Your task to perform on an android device: turn vacation reply on in the gmail app Image 0: 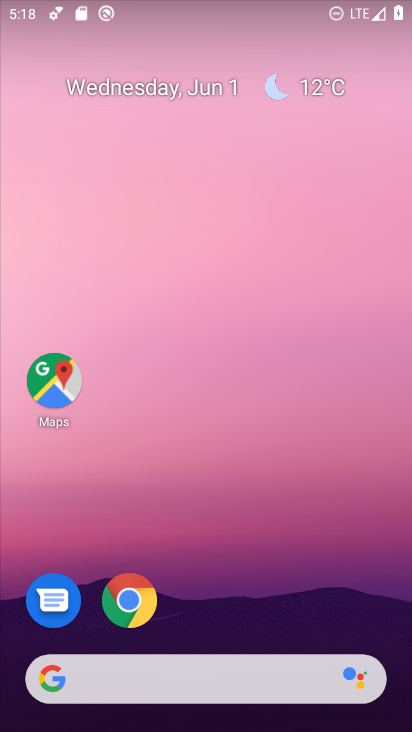
Step 0: drag from (387, 626) to (277, 0)
Your task to perform on an android device: turn vacation reply on in the gmail app Image 1: 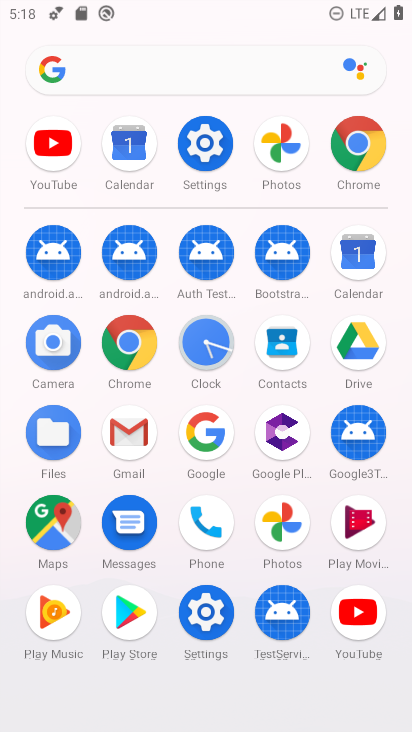
Step 1: click (129, 428)
Your task to perform on an android device: turn vacation reply on in the gmail app Image 2: 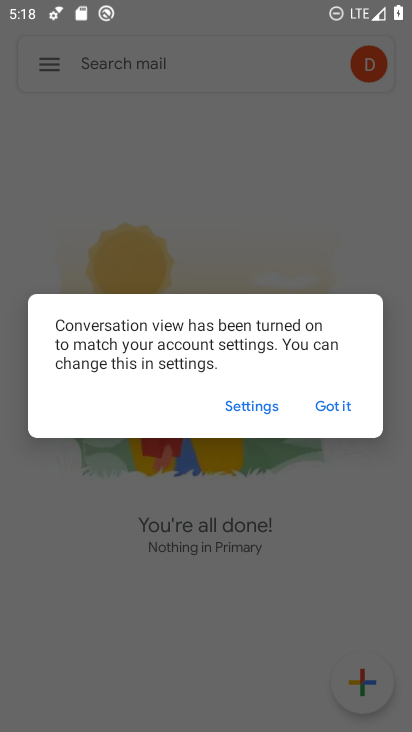
Step 2: press home button
Your task to perform on an android device: turn vacation reply on in the gmail app Image 3: 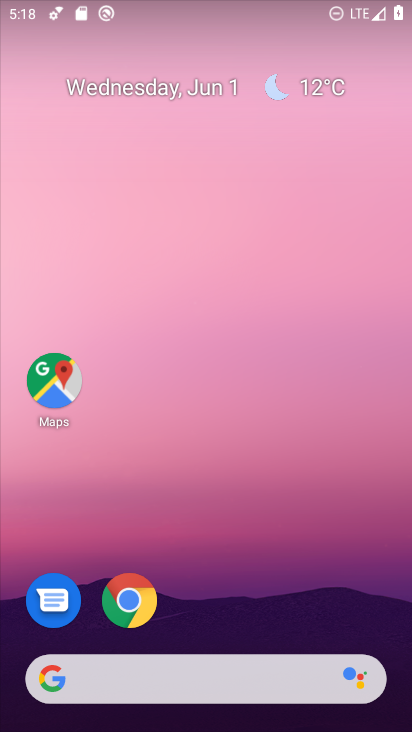
Step 3: drag from (386, 625) to (306, 70)
Your task to perform on an android device: turn vacation reply on in the gmail app Image 4: 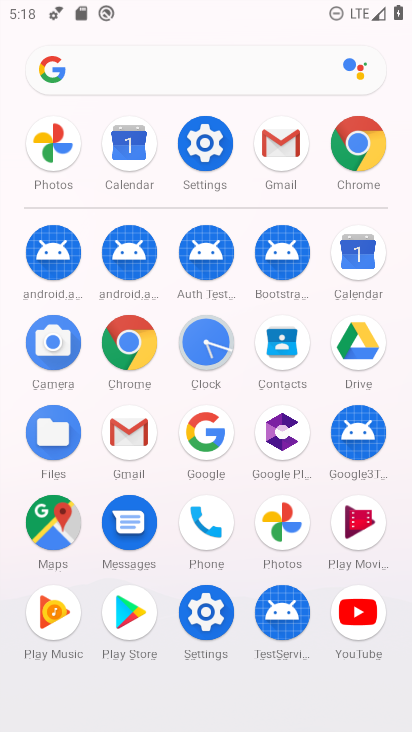
Step 4: click (129, 429)
Your task to perform on an android device: turn vacation reply on in the gmail app Image 5: 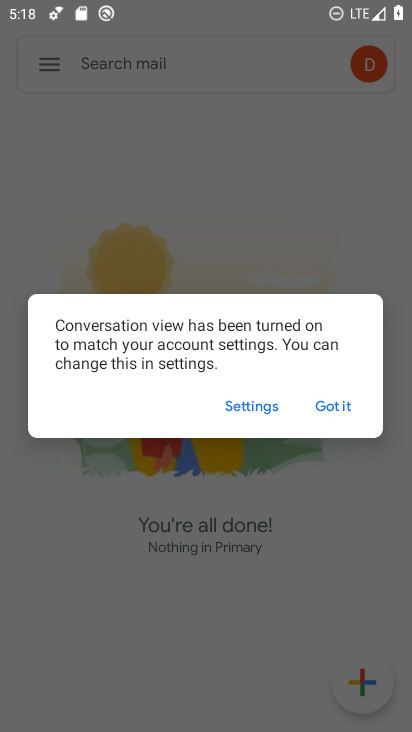
Step 5: click (333, 400)
Your task to perform on an android device: turn vacation reply on in the gmail app Image 6: 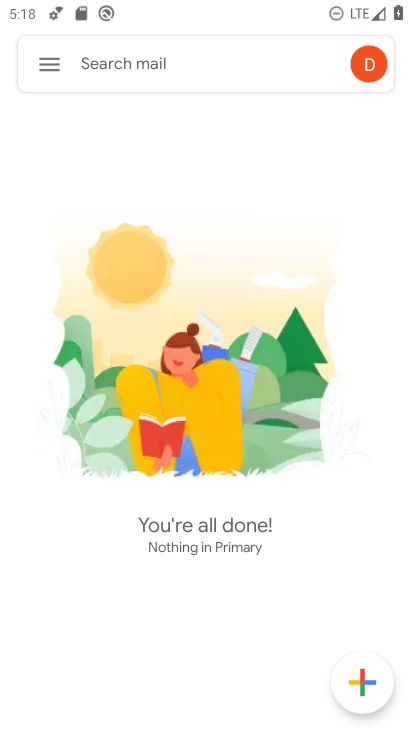
Step 6: click (42, 61)
Your task to perform on an android device: turn vacation reply on in the gmail app Image 7: 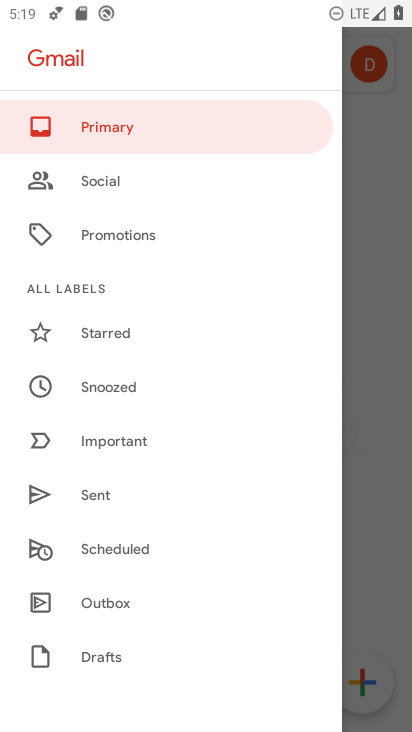
Step 7: drag from (229, 621) to (239, 162)
Your task to perform on an android device: turn vacation reply on in the gmail app Image 8: 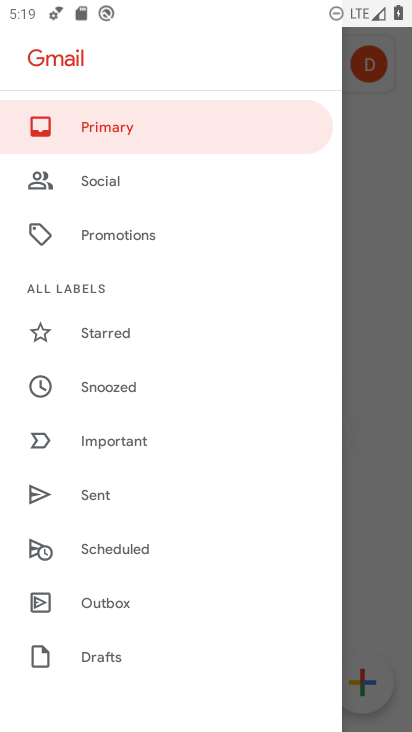
Step 8: drag from (220, 476) to (247, 201)
Your task to perform on an android device: turn vacation reply on in the gmail app Image 9: 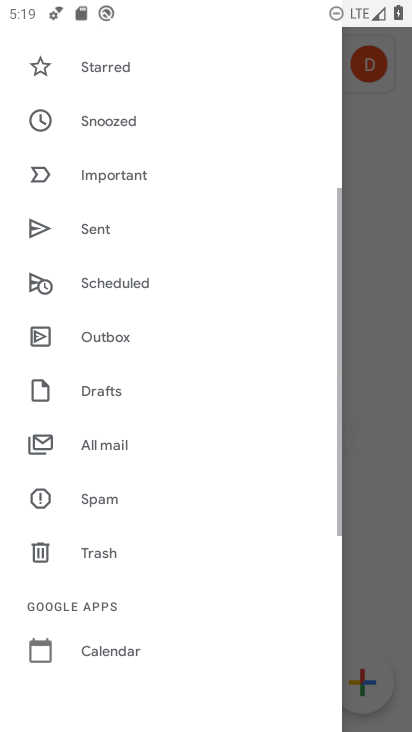
Step 9: drag from (184, 641) to (206, 213)
Your task to perform on an android device: turn vacation reply on in the gmail app Image 10: 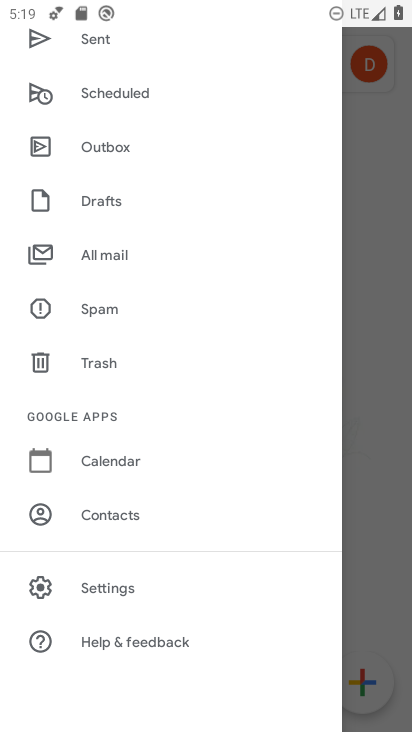
Step 10: click (114, 585)
Your task to perform on an android device: turn vacation reply on in the gmail app Image 11: 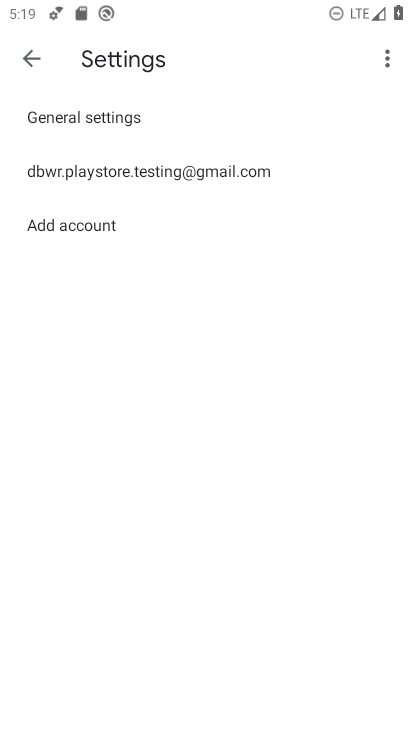
Step 11: click (155, 164)
Your task to perform on an android device: turn vacation reply on in the gmail app Image 12: 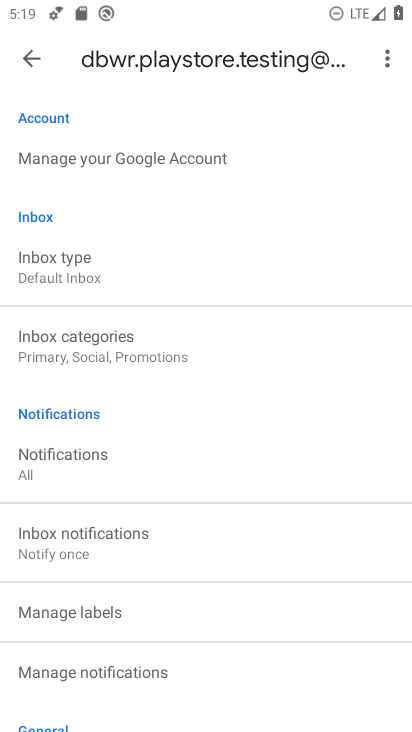
Step 12: drag from (199, 551) to (195, 188)
Your task to perform on an android device: turn vacation reply on in the gmail app Image 13: 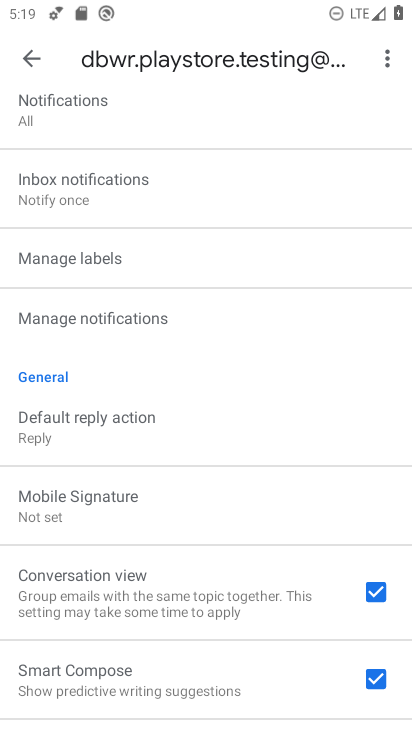
Step 13: drag from (237, 641) to (258, 213)
Your task to perform on an android device: turn vacation reply on in the gmail app Image 14: 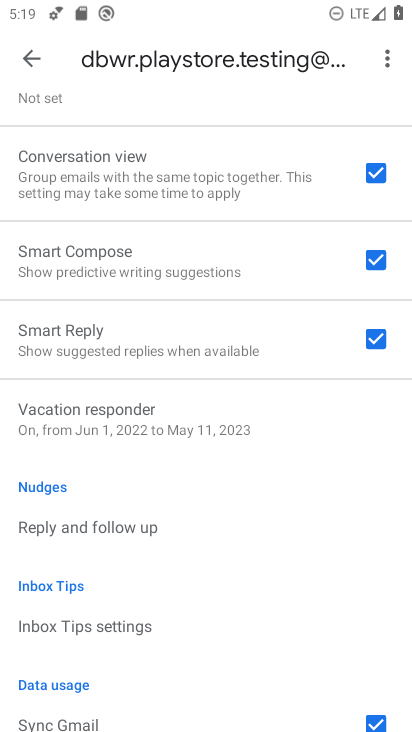
Step 14: click (90, 417)
Your task to perform on an android device: turn vacation reply on in the gmail app Image 15: 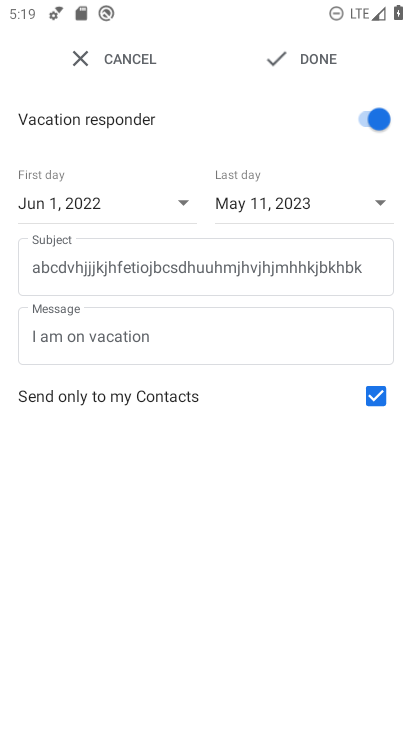
Step 15: task complete